Your task to perform on an android device: Go to battery settings Image 0: 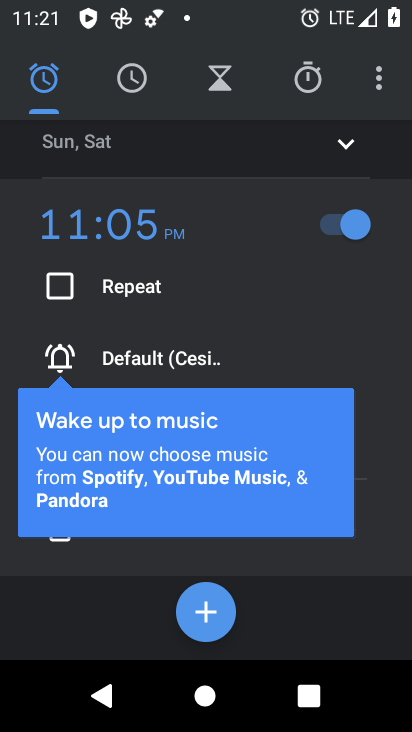
Step 0: press home button
Your task to perform on an android device: Go to battery settings Image 1: 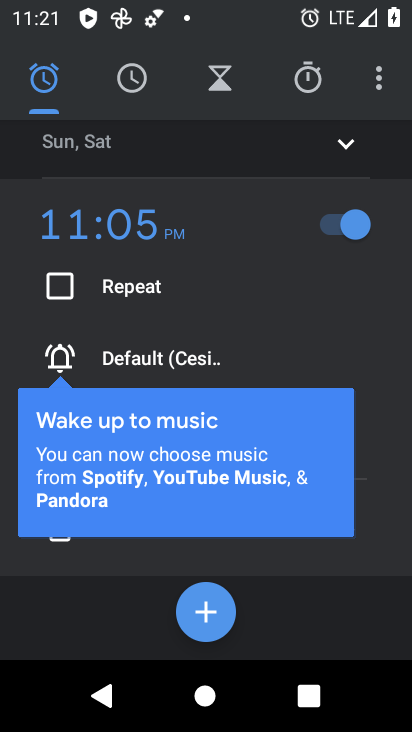
Step 1: press home button
Your task to perform on an android device: Go to battery settings Image 2: 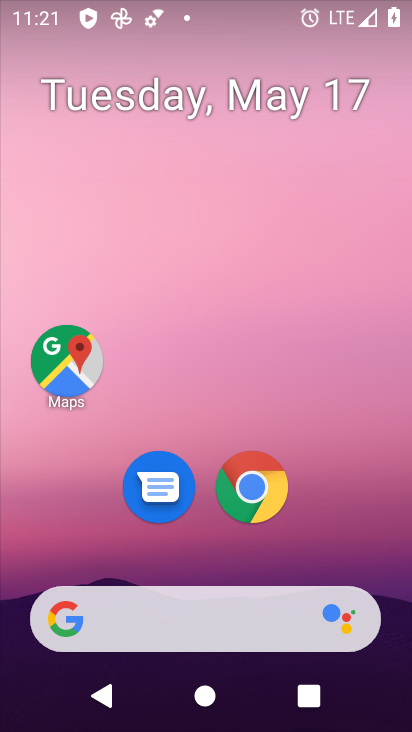
Step 2: click (402, 383)
Your task to perform on an android device: Go to battery settings Image 3: 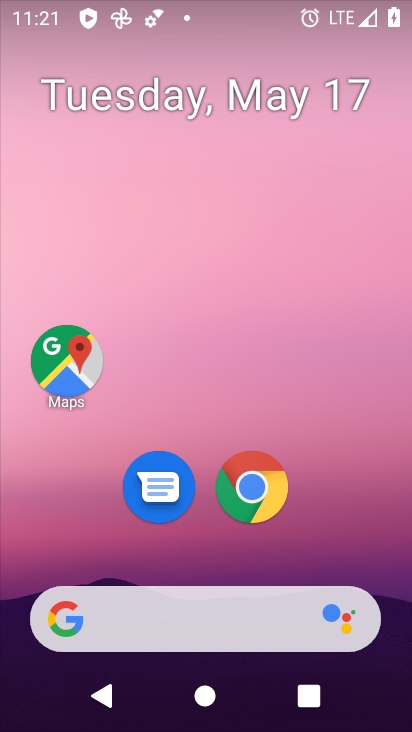
Step 3: drag from (384, 515) to (333, 231)
Your task to perform on an android device: Go to battery settings Image 4: 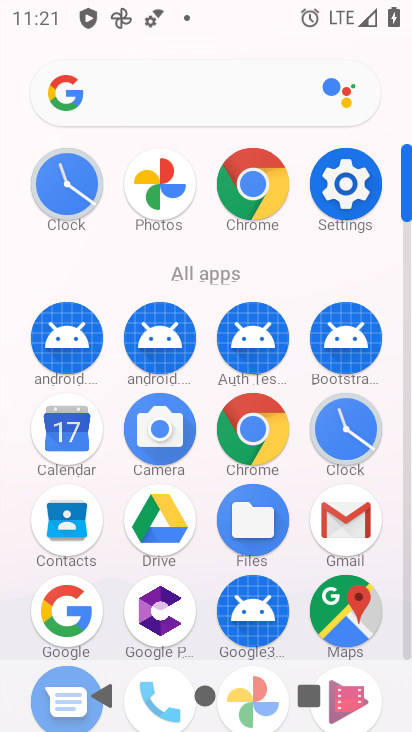
Step 4: click (343, 173)
Your task to perform on an android device: Go to battery settings Image 5: 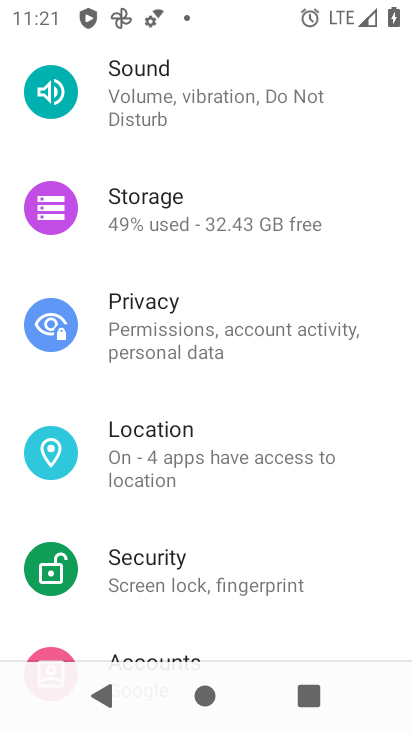
Step 5: drag from (223, 162) to (245, 603)
Your task to perform on an android device: Go to battery settings Image 6: 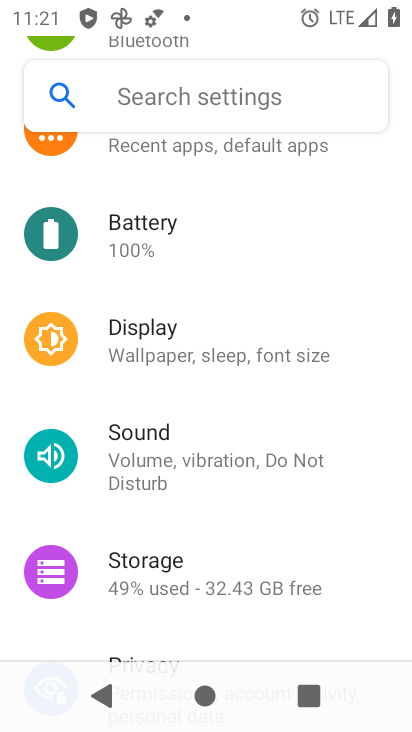
Step 6: drag from (162, 140) to (199, 470)
Your task to perform on an android device: Go to battery settings Image 7: 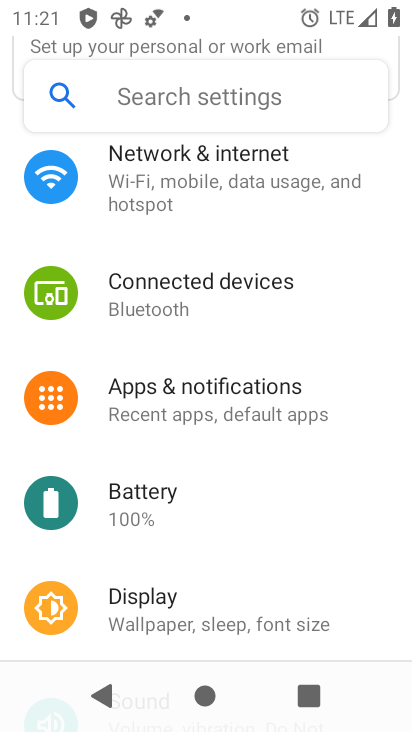
Step 7: click (201, 501)
Your task to perform on an android device: Go to battery settings Image 8: 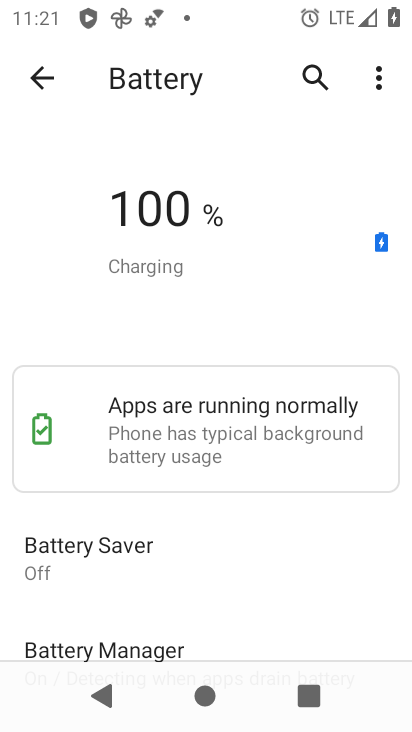
Step 8: task complete